Your task to perform on an android device: Go to notification settings Image 0: 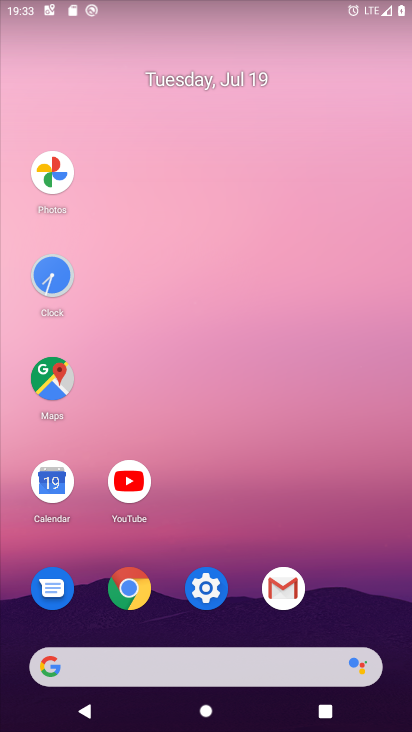
Step 0: click (217, 595)
Your task to perform on an android device: Go to notification settings Image 1: 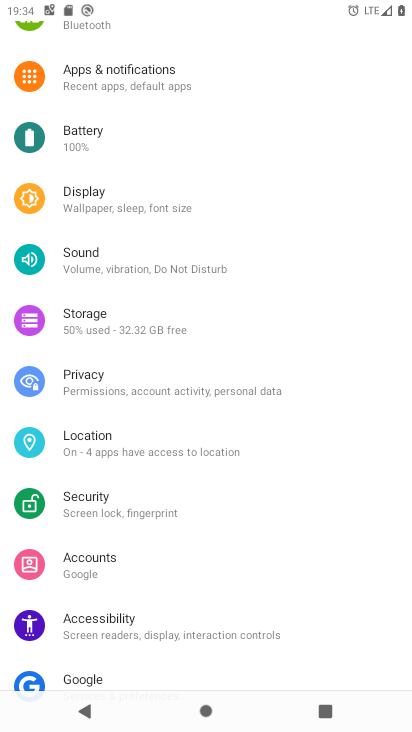
Step 1: click (94, 69)
Your task to perform on an android device: Go to notification settings Image 2: 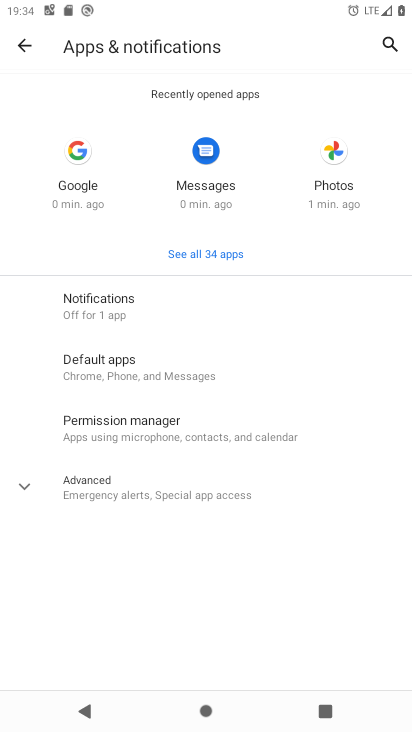
Step 2: task complete